Your task to perform on an android device: turn pop-ups off in chrome Image 0: 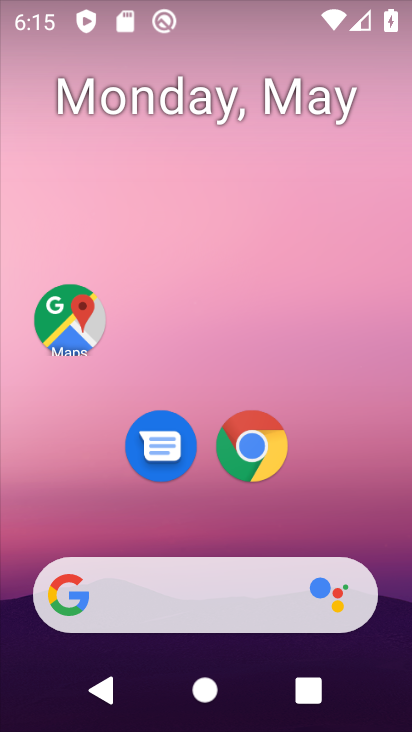
Step 0: click (244, 441)
Your task to perform on an android device: turn pop-ups off in chrome Image 1: 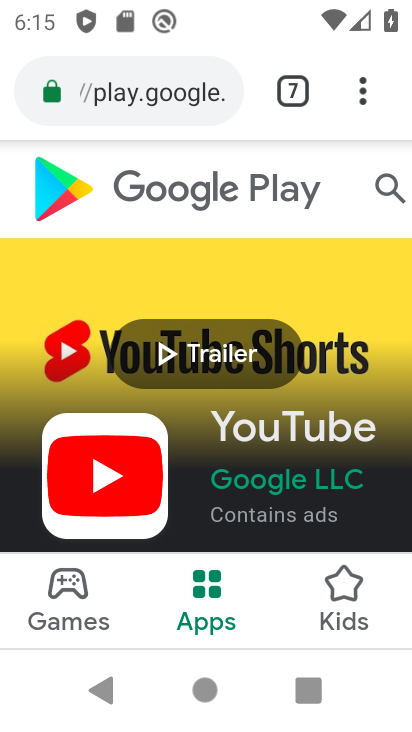
Step 1: click (364, 83)
Your task to perform on an android device: turn pop-ups off in chrome Image 2: 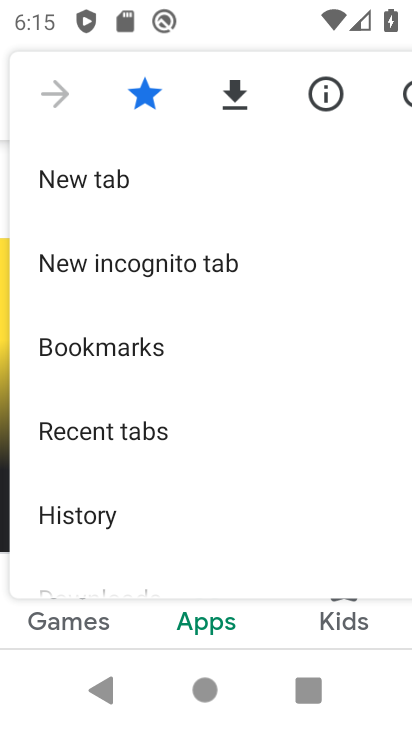
Step 2: drag from (225, 460) to (142, 156)
Your task to perform on an android device: turn pop-ups off in chrome Image 3: 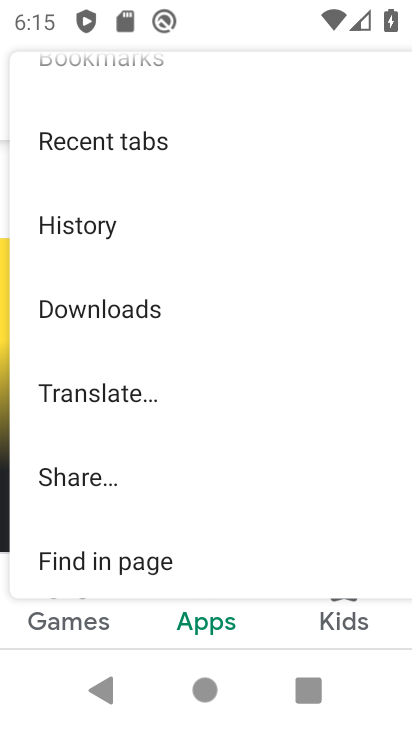
Step 3: drag from (161, 429) to (105, 96)
Your task to perform on an android device: turn pop-ups off in chrome Image 4: 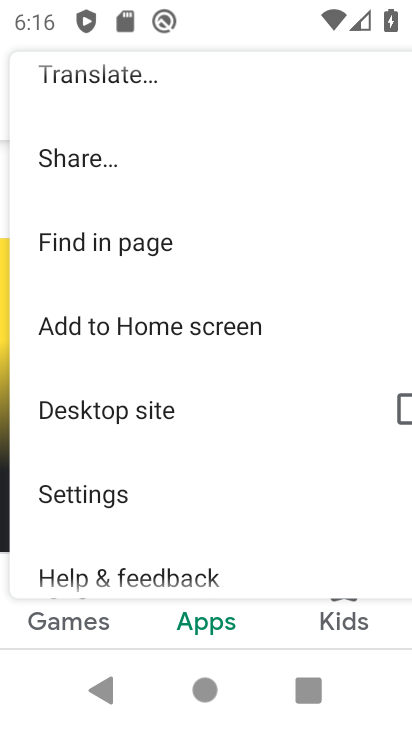
Step 4: drag from (177, 491) to (201, 200)
Your task to perform on an android device: turn pop-ups off in chrome Image 5: 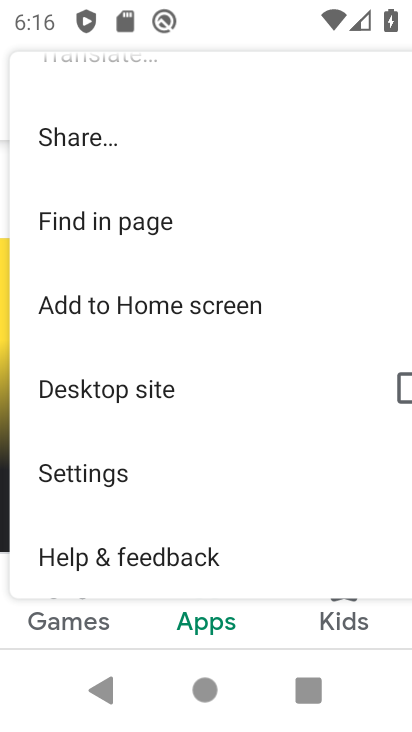
Step 5: click (103, 475)
Your task to perform on an android device: turn pop-ups off in chrome Image 6: 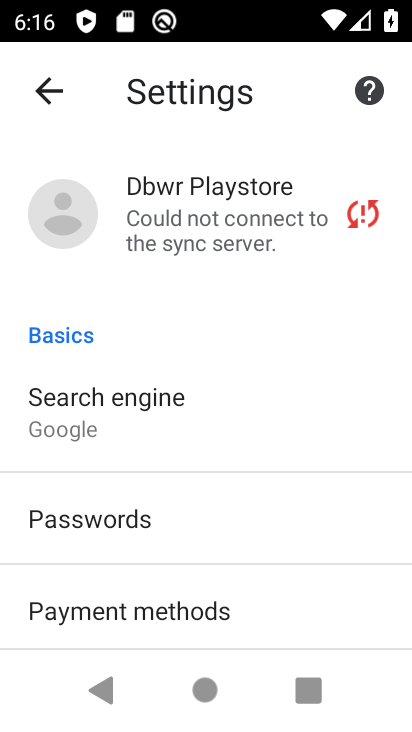
Step 6: drag from (258, 519) to (243, 207)
Your task to perform on an android device: turn pop-ups off in chrome Image 7: 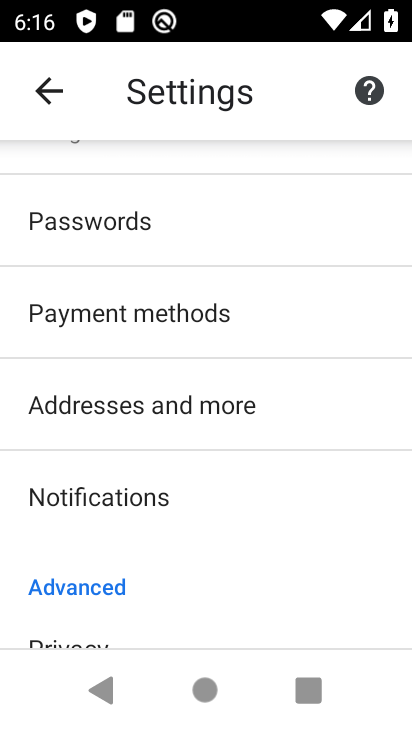
Step 7: drag from (230, 493) to (231, 134)
Your task to perform on an android device: turn pop-ups off in chrome Image 8: 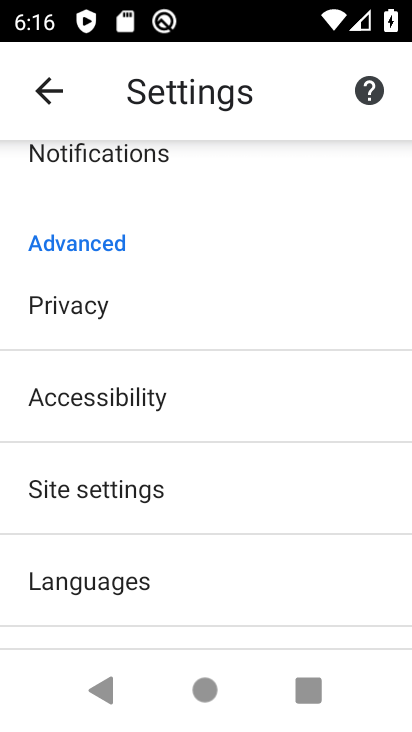
Step 8: click (121, 488)
Your task to perform on an android device: turn pop-ups off in chrome Image 9: 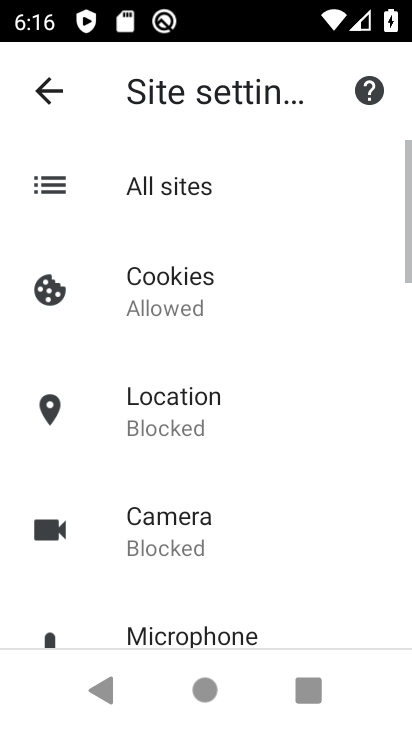
Step 9: drag from (263, 526) to (235, 107)
Your task to perform on an android device: turn pop-ups off in chrome Image 10: 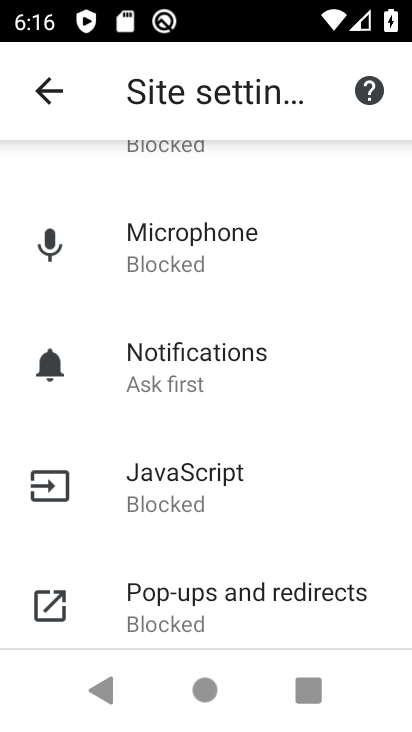
Step 10: click (182, 603)
Your task to perform on an android device: turn pop-ups off in chrome Image 11: 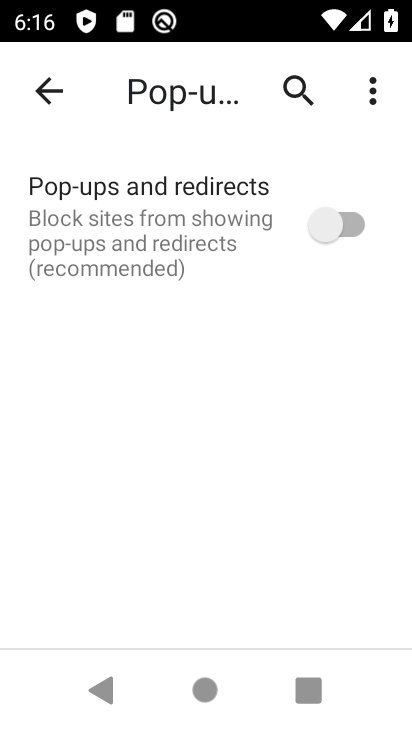
Step 11: task complete